Your task to perform on an android device: Open ESPN.com Image 0: 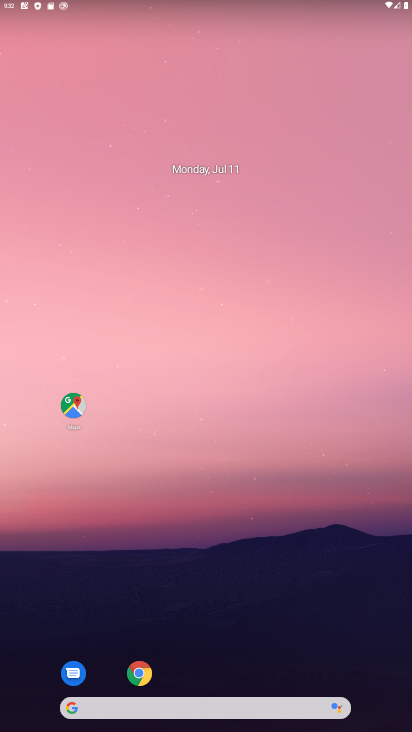
Step 0: click (145, 669)
Your task to perform on an android device: Open ESPN.com Image 1: 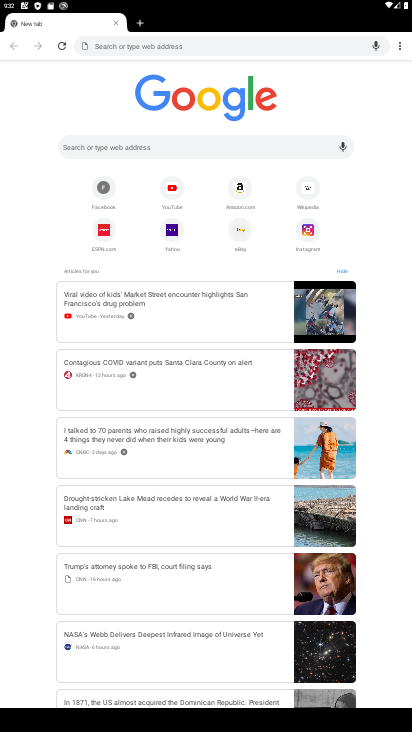
Step 1: click (104, 230)
Your task to perform on an android device: Open ESPN.com Image 2: 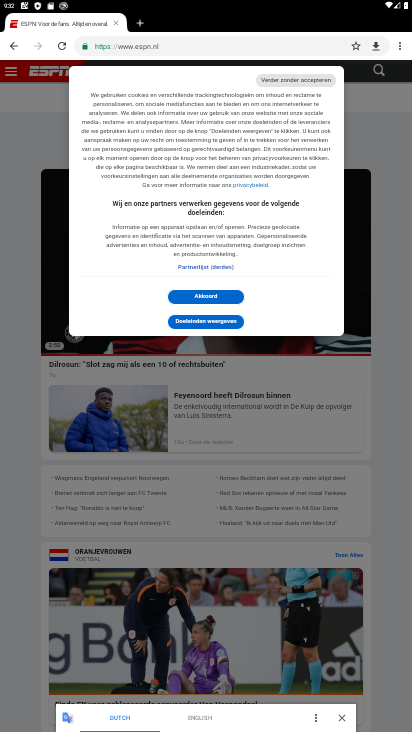
Step 2: task complete